Your task to perform on an android device: Go to accessibility settings Image 0: 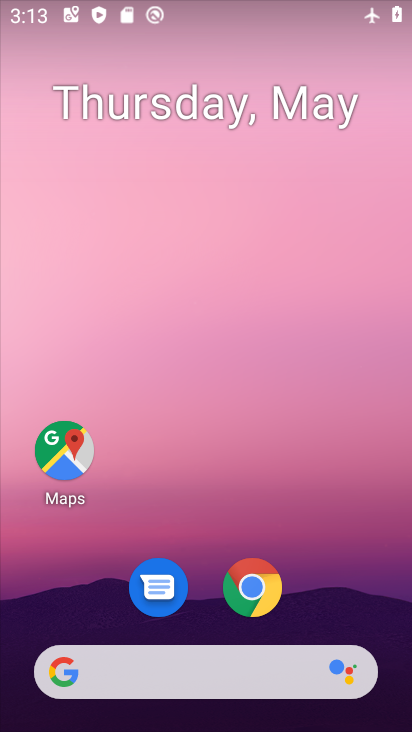
Step 0: drag from (255, 620) to (287, 277)
Your task to perform on an android device: Go to accessibility settings Image 1: 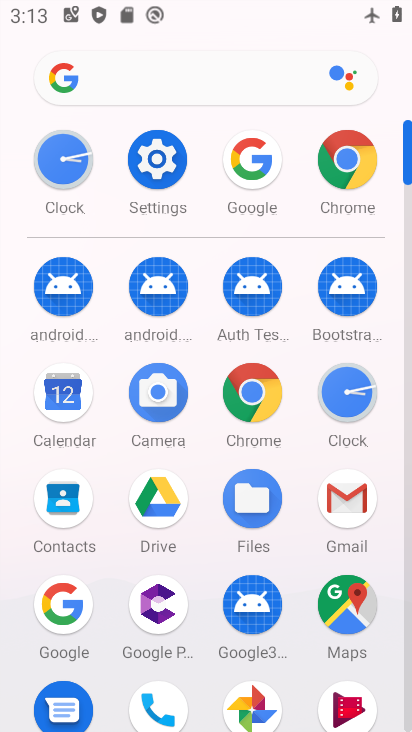
Step 1: click (166, 161)
Your task to perform on an android device: Go to accessibility settings Image 2: 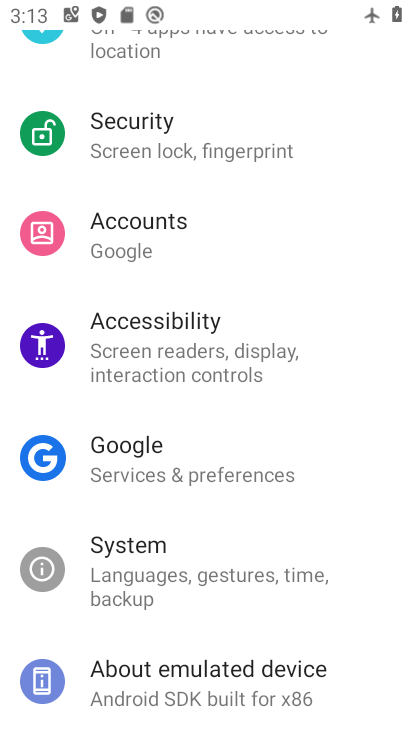
Step 2: click (201, 324)
Your task to perform on an android device: Go to accessibility settings Image 3: 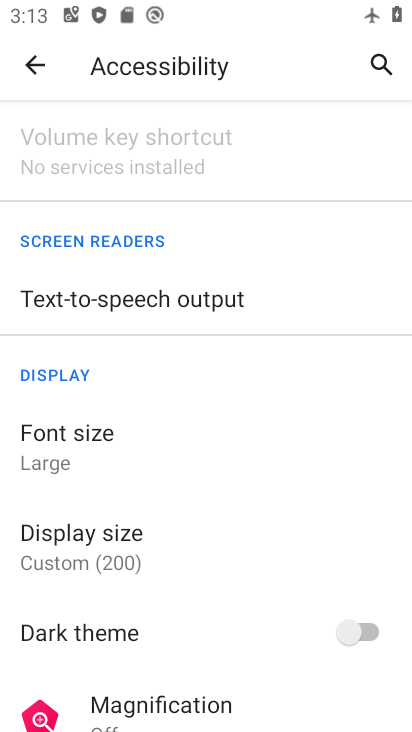
Step 3: task complete